Your task to perform on an android device: remove spam from my inbox in the gmail app Image 0: 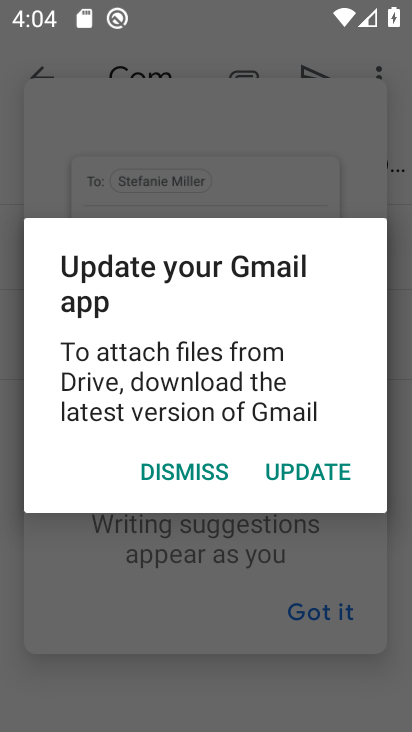
Step 0: click (216, 478)
Your task to perform on an android device: remove spam from my inbox in the gmail app Image 1: 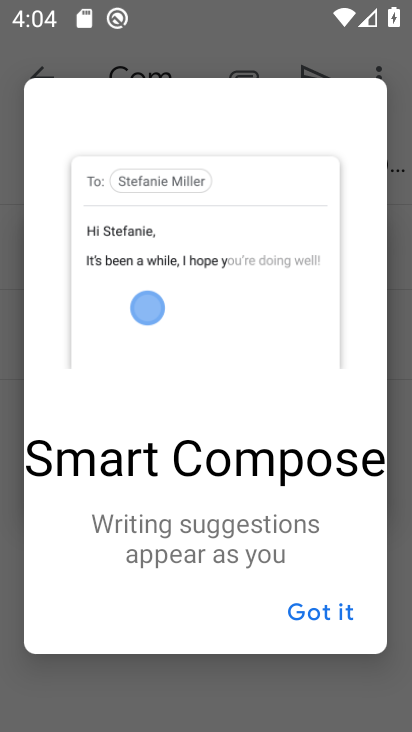
Step 1: type ""
Your task to perform on an android device: remove spam from my inbox in the gmail app Image 2: 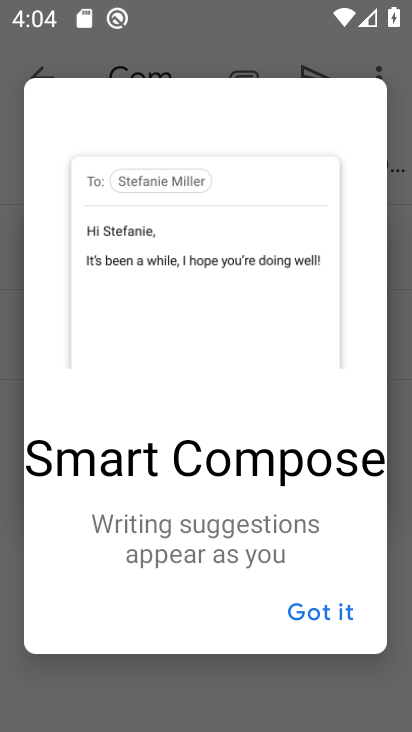
Step 2: press home button
Your task to perform on an android device: remove spam from my inbox in the gmail app Image 3: 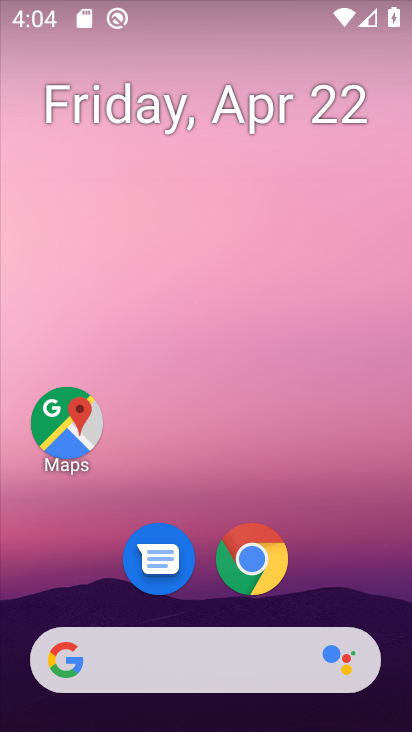
Step 3: drag from (361, 517) to (274, 173)
Your task to perform on an android device: remove spam from my inbox in the gmail app Image 4: 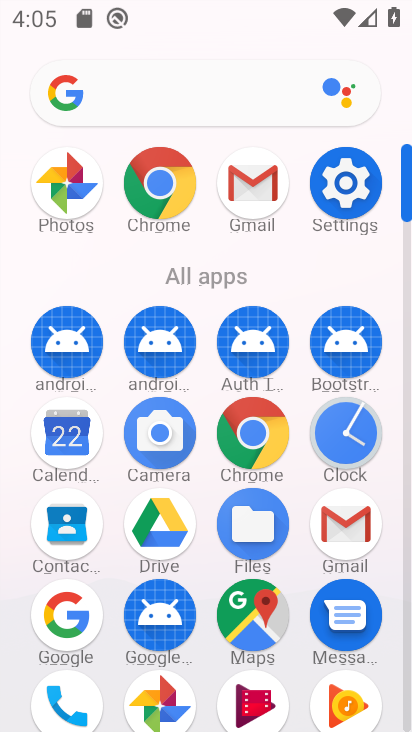
Step 4: click (211, 199)
Your task to perform on an android device: remove spam from my inbox in the gmail app Image 5: 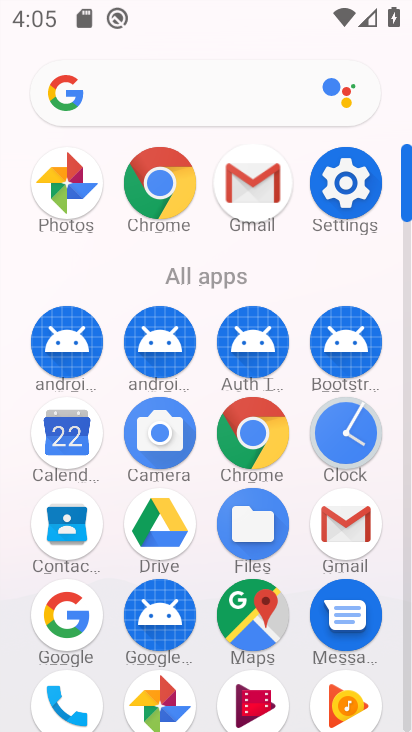
Step 5: press home button
Your task to perform on an android device: remove spam from my inbox in the gmail app Image 6: 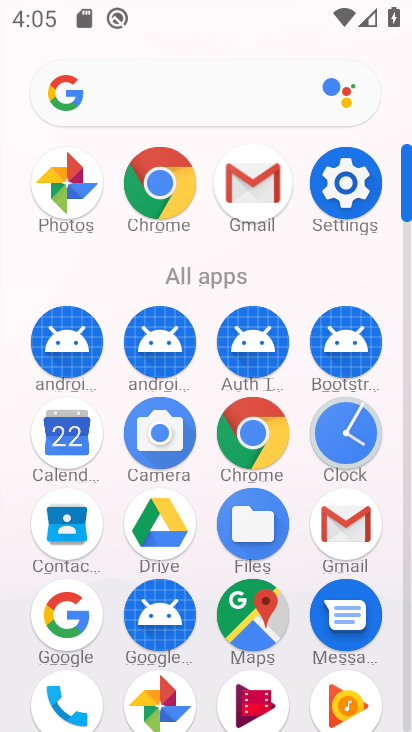
Step 6: click (215, 133)
Your task to perform on an android device: remove spam from my inbox in the gmail app Image 7: 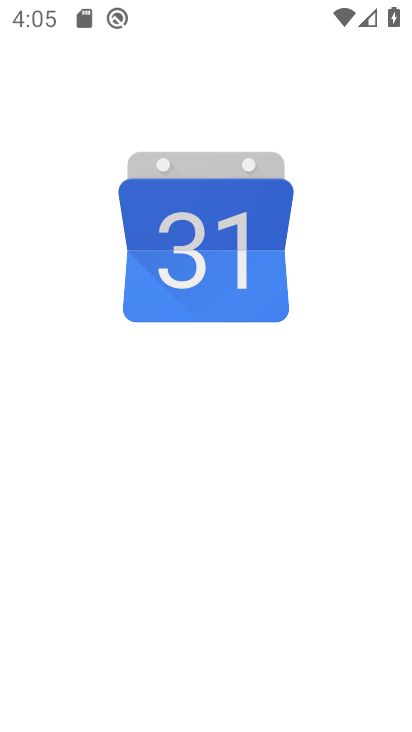
Step 7: drag from (213, 412) to (225, 318)
Your task to perform on an android device: remove spam from my inbox in the gmail app Image 8: 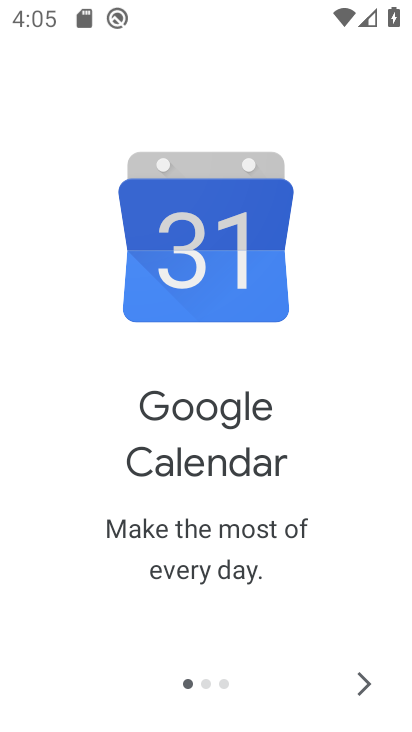
Step 8: press home button
Your task to perform on an android device: remove spam from my inbox in the gmail app Image 9: 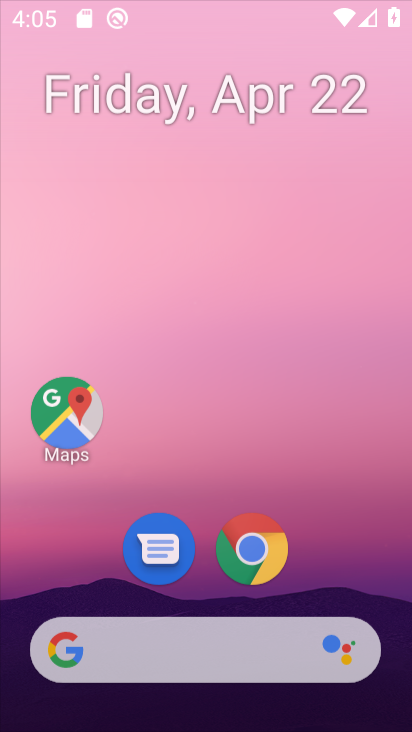
Step 9: click (369, 683)
Your task to perform on an android device: remove spam from my inbox in the gmail app Image 10: 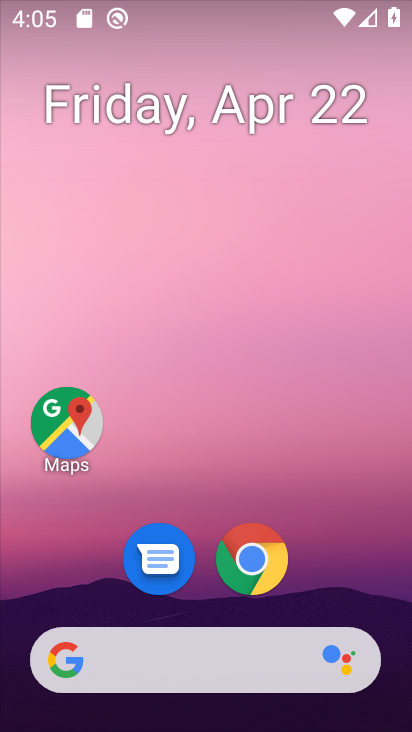
Step 10: press home button
Your task to perform on an android device: remove spam from my inbox in the gmail app Image 11: 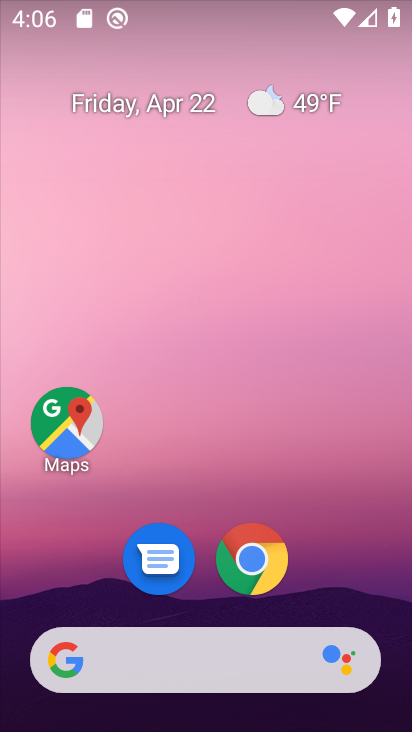
Step 11: drag from (269, 292) to (290, 179)
Your task to perform on an android device: remove spam from my inbox in the gmail app Image 12: 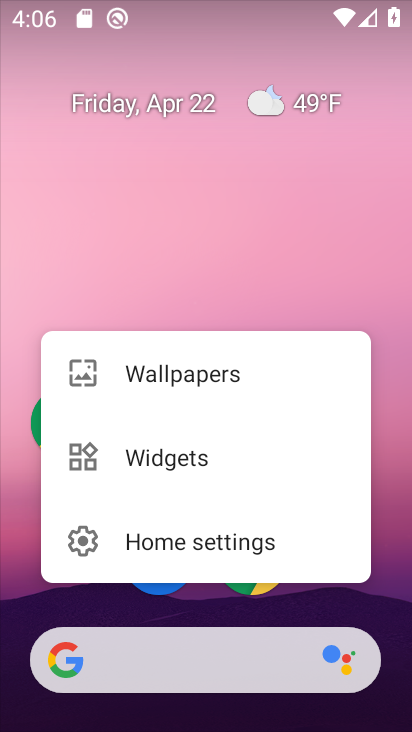
Step 12: drag from (240, 413) to (245, 201)
Your task to perform on an android device: remove spam from my inbox in the gmail app Image 13: 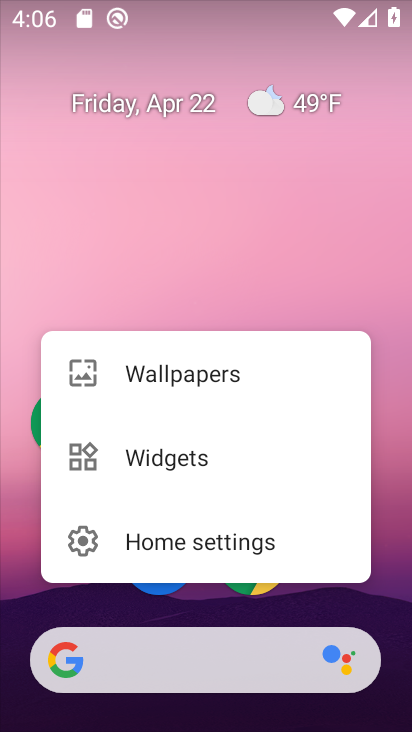
Step 13: press home button
Your task to perform on an android device: remove spam from my inbox in the gmail app Image 14: 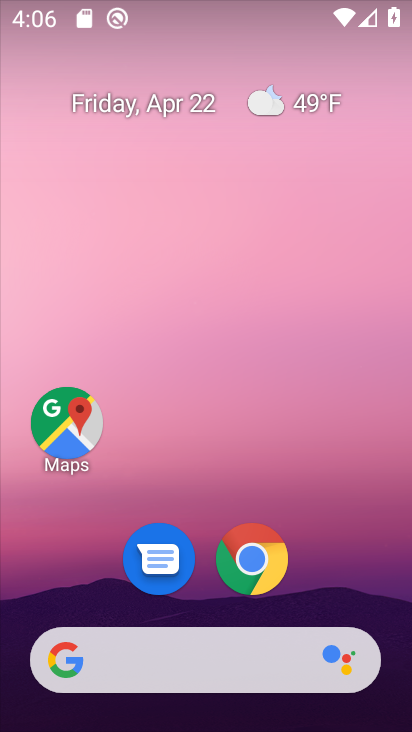
Step 14: click (333, 264)
Your task to perform on an android device: remove spam from my inbox in the gmail app Image 15: 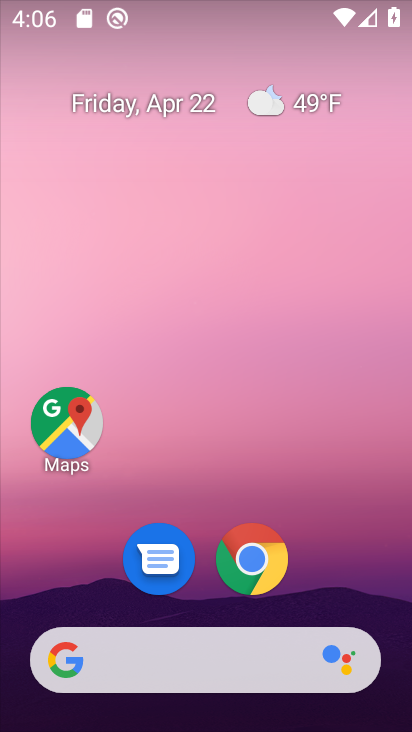
Step 15: click (304, 255)
Your task to perform on an android device: remove spam from my inbox in the gmail app Image 16: 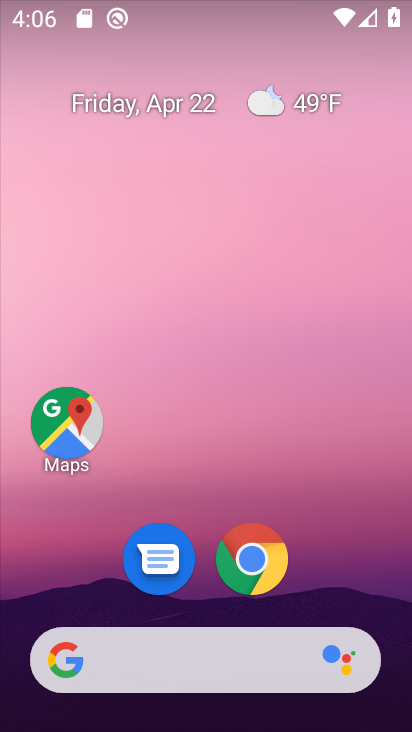
Step 16: drag from (222, 447) to (227, 144)
Your task to perform on an android device: remove spam from my inbox in the gmail app Image 17: 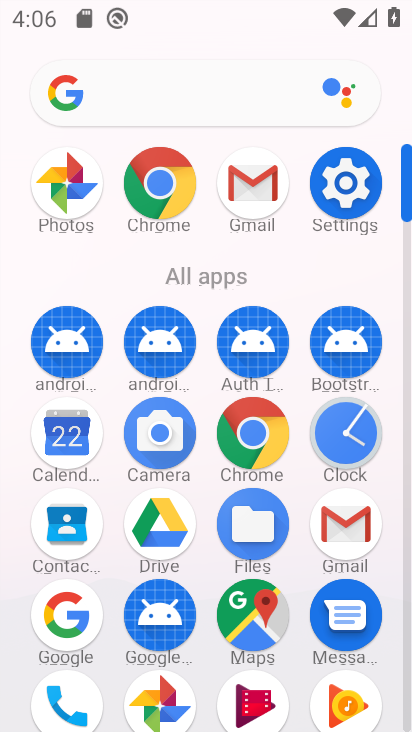
Step 17: click (344, 518)
Your task to perform on an android device: remove spam from my inbox in the gmail app Image 18: 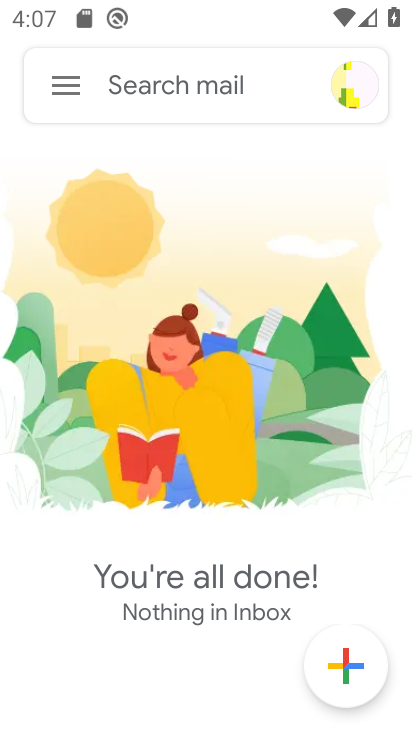
Step 18: click (71, 92)
Your task to perform on an android device: remove spam from my inbox in the gmail app Image 19: 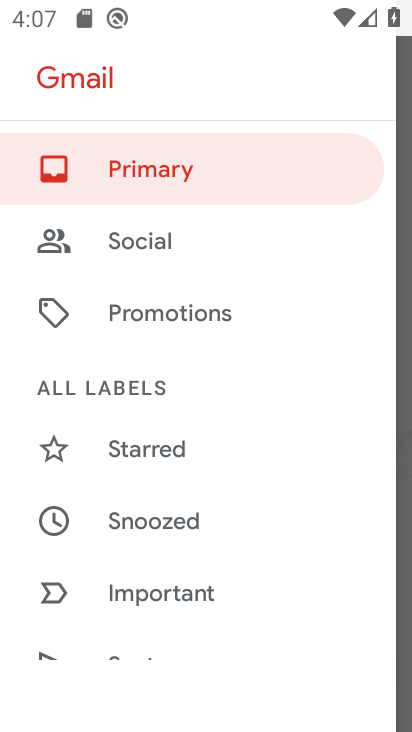
Step 19: drag from (203, 507) to (179, 258)
Your task to perform on an android device: remove spam from my inbox in the gmail app Image 20: 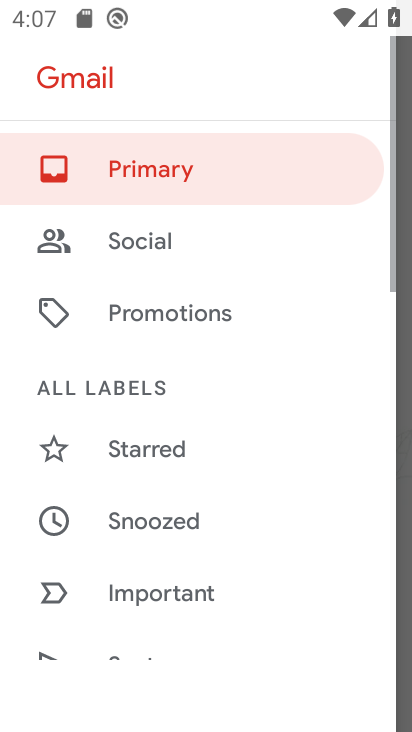
Step 20: drag from (158, 371) to (189, 239)
Your task to perform on an android device: remove spam from my inbox in the gmail app Image 21: 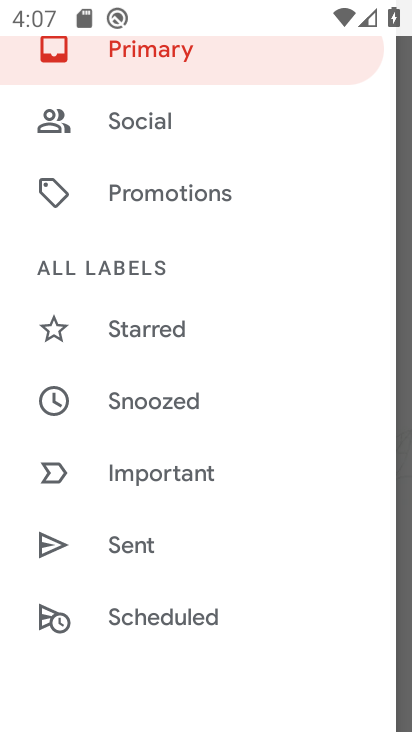
Step 21: drag from (159, 545) to (166, 215)
Your task to perform on an android device: remove spam from my inbox in the gmail app Image 22: 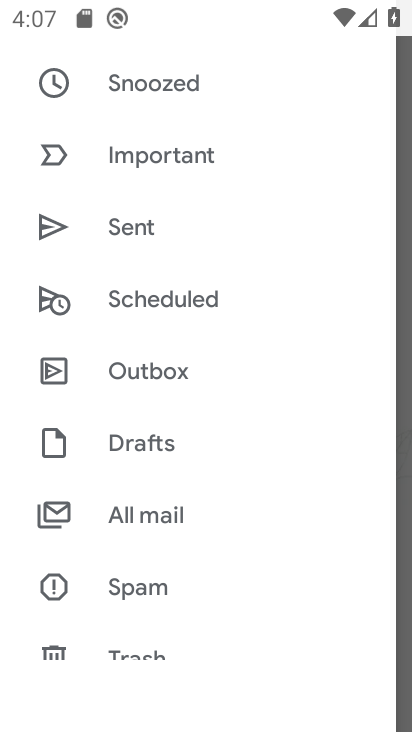
Step 22: click (135, 587)
Your task to perform on an android device: remove spam from my inbox in the gmail app Image 23: 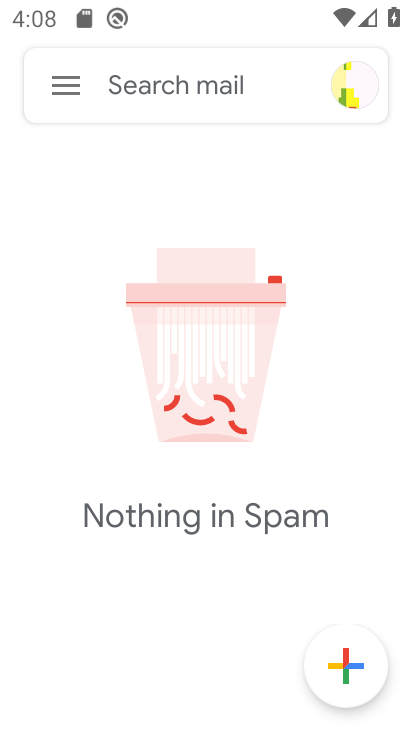
Step 23: task complete